Your task to perform on an android device: turn on showing notifications on the lock screen Image 0: 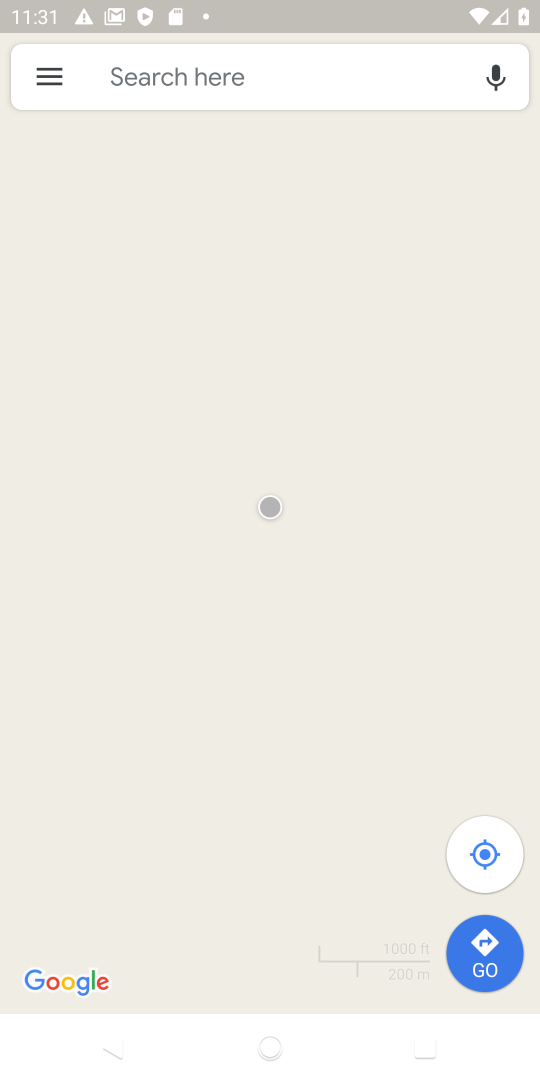
Step 0: press home button
Your task to perform on an android device: turn on showing notifications on the lock screen Image 1: 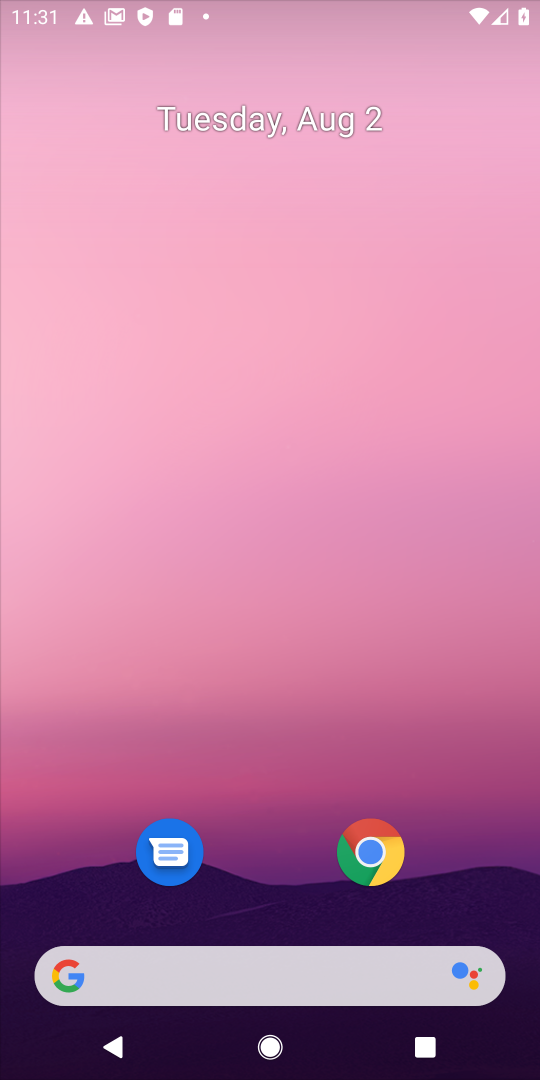
Step 1: drag from (483, 889) to (263, 73)
Your task to perform on an android device: turn on showing notifications on the lock screen Image 2: 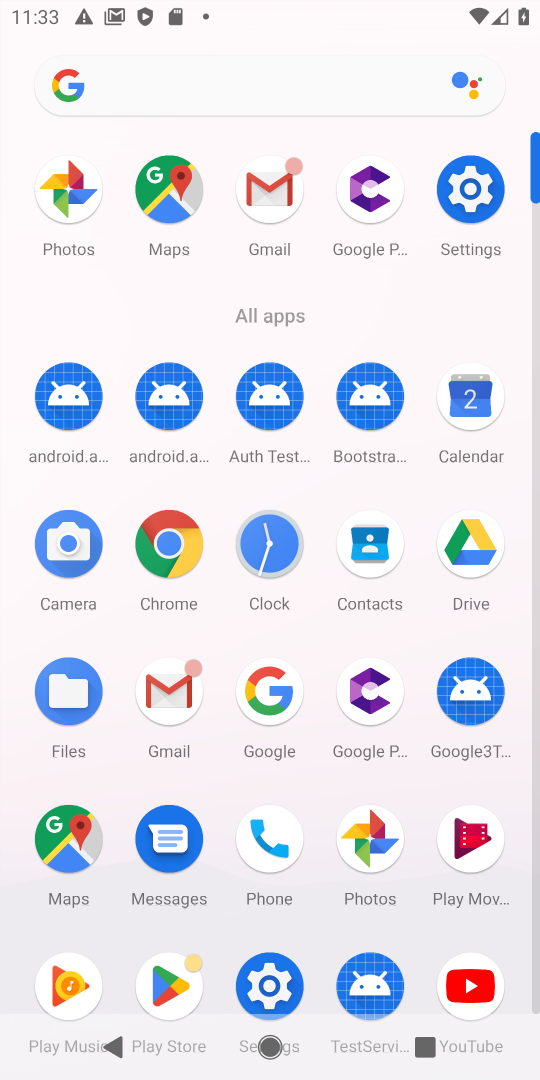
Step 2: click (257, 975)
Your task to perform on an android device: turn on showing notifications on the lock screen Image 3: 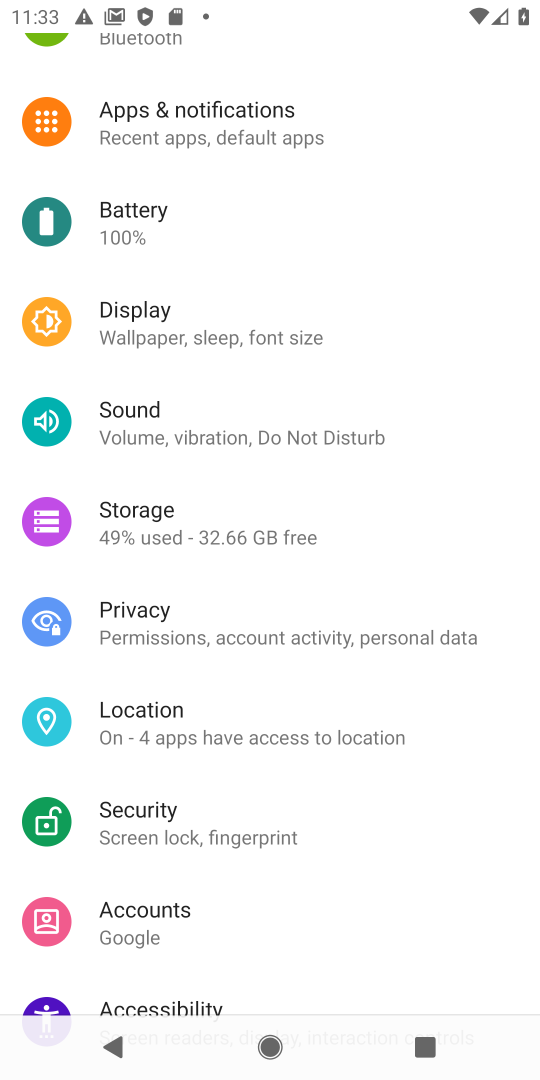
Step 3: click (213, 133)
Your task to perform on an android device: turn on showing notifications on the lock screen Image 4: 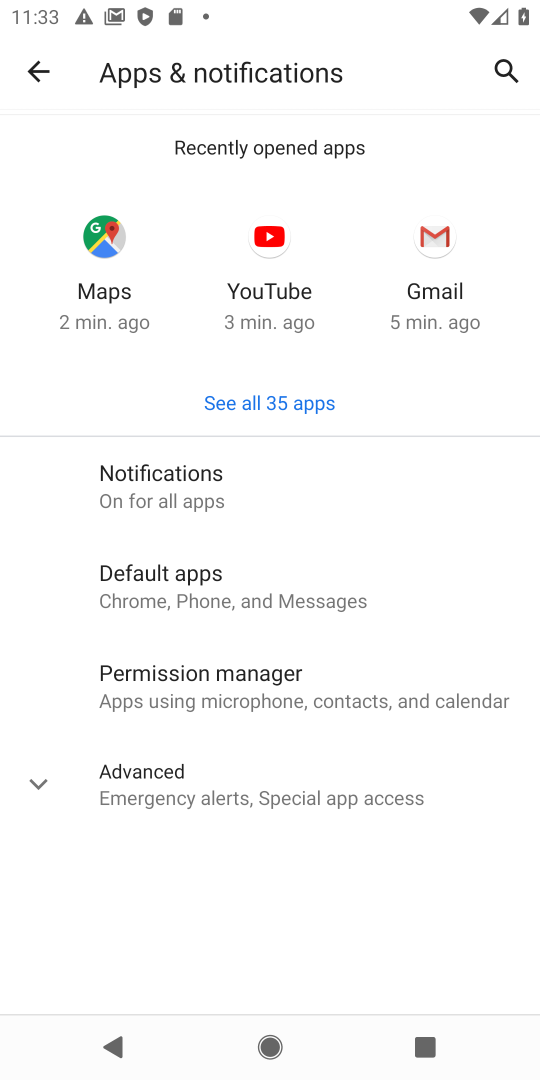
Step 4: click (96, 777)
Your task to perform on an android device: turn on showing notifications on the lock screen Image 5: 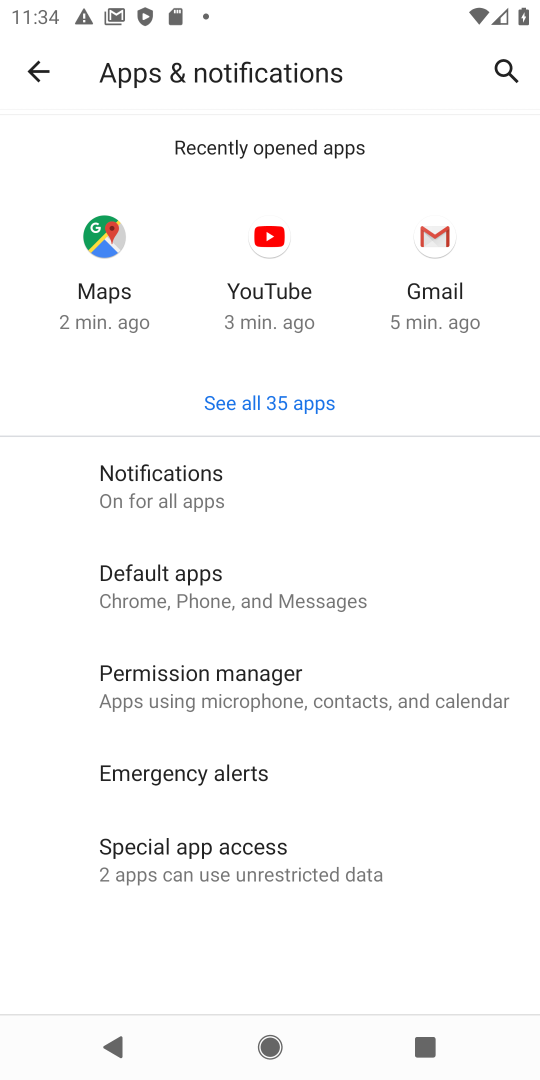
Step 5: click (170, 464)
Your task to perform on an android device: turn on showing notifications on the lock screen Image 6: 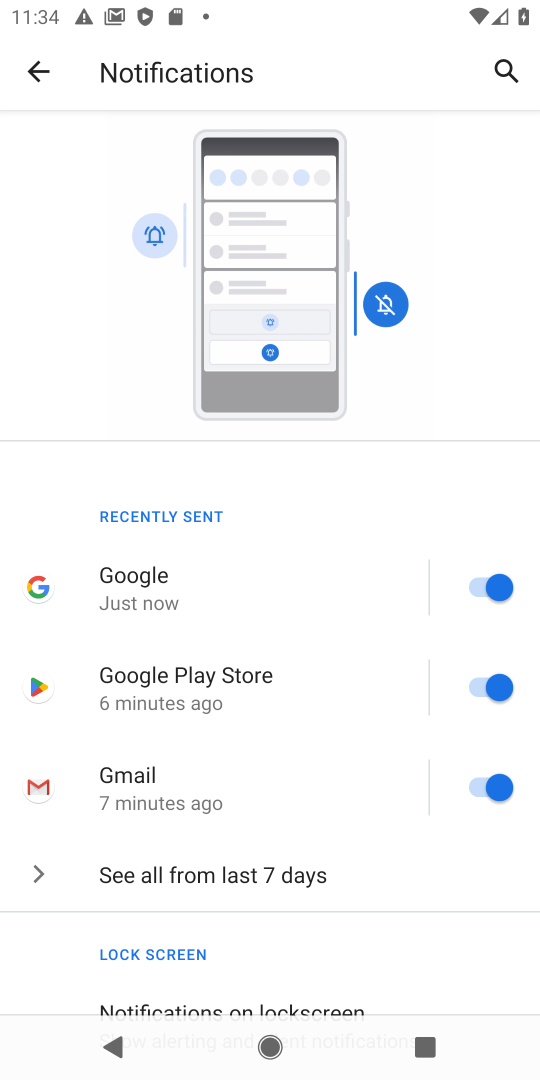
Step 6: click (269, 1000)
Your task to perform on an android device: turn on showing notifications on the lock screen Image 7: 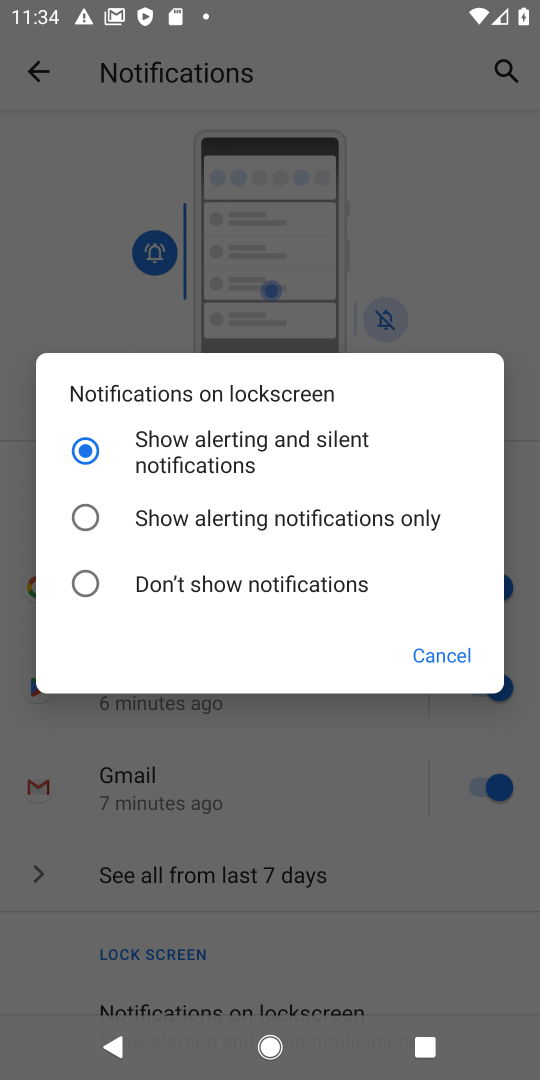
Step 7: task complete